Your task to perform on an android device: turn off notifications settings in the gmail app Image 0: 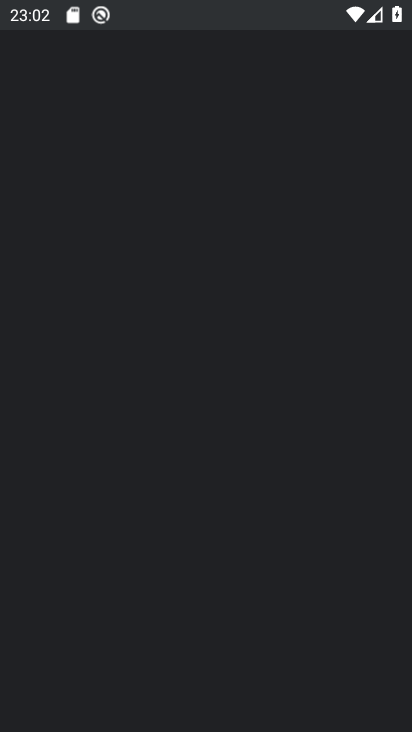
Step 0: drag from (229, 618) to (312, 321)
Your task to perform on an android device: turn off notifications settings in the gmail app Image 1: 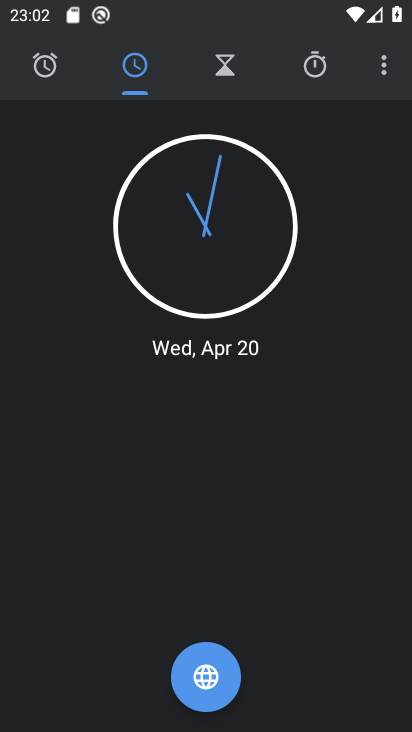
Step 1: press home button
Your task to perform on an android device: turn off notifications settings in the gmail app Image 2: 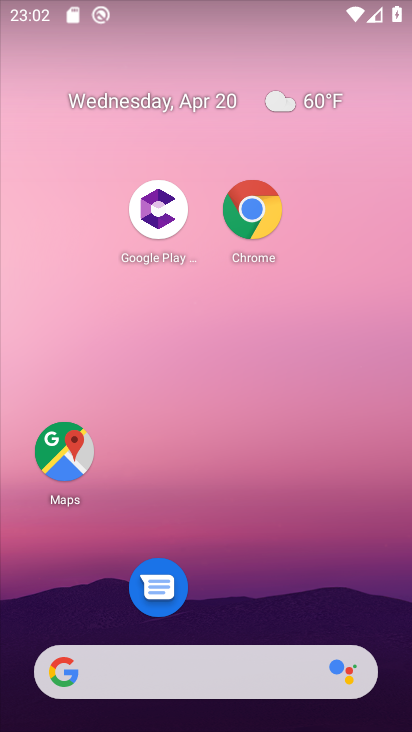
Step 2: drag from (209, 619) to (212, 114)
Your task to perform on an android device: turn off notifications settings in the gmail app Image 3: 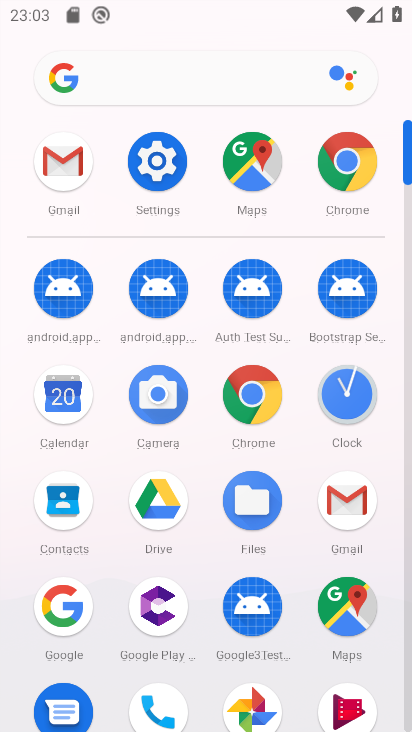
Step 3: click (63, 153)
Your task to perform on an android device: turn off notifications settings in the gmail app Image 4: 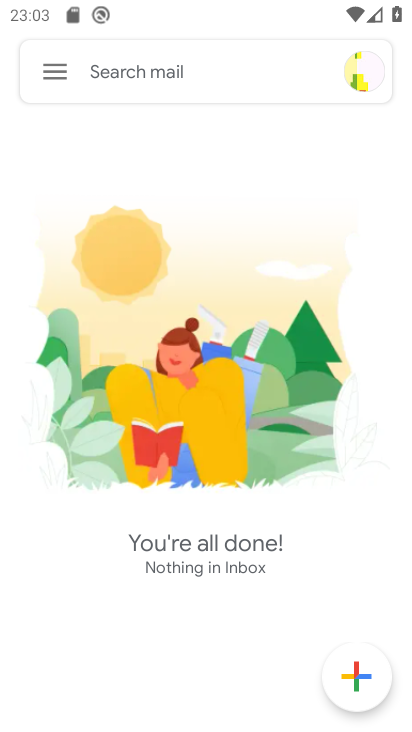
Step 4: click (58, 68)
Your task to perform on an android device: turn off notifications settings in the gmail app Image 5: 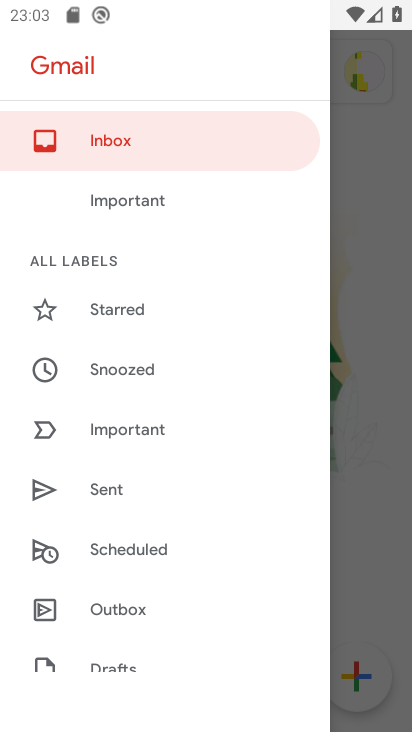
Step 5: drag from (152, 547) to (168, 185)
Your task to perform on an android device: turn off notifications settings in the gmail app Image 6: 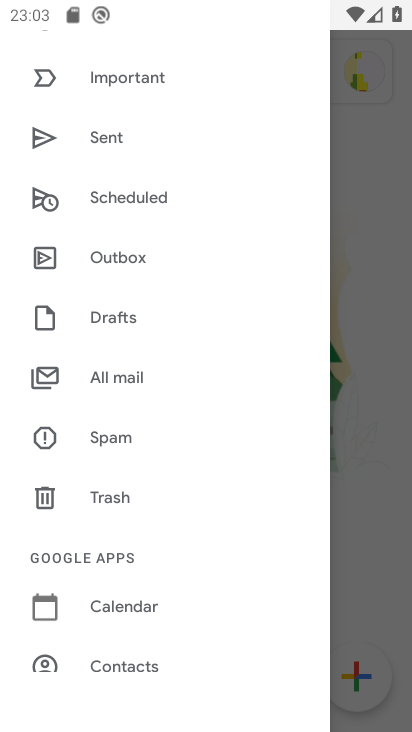
Step 6: drag from (184, 627) to (187, 169)
Your task to perform on an android device: turn off notifications settings in the gmail app Image 7: 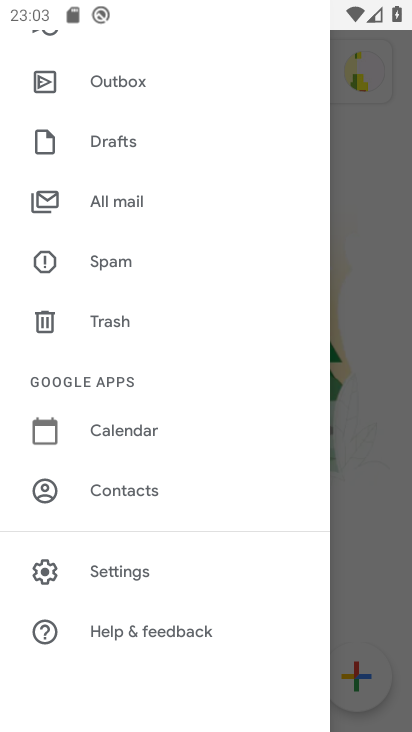
Step 7: click (167, 567)
Your task to perform on an android device: turn off notifications settings in the gmail app Image 8: 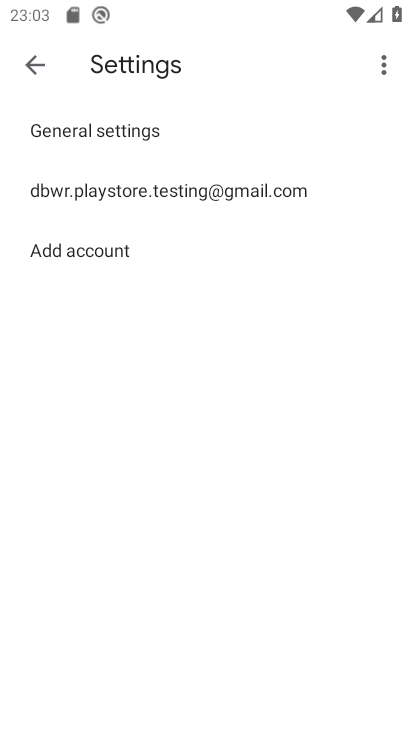
Step 8: click (167, 129)
Your task to perform on an android device: turn off notifications settings in the gmail app Image 9: 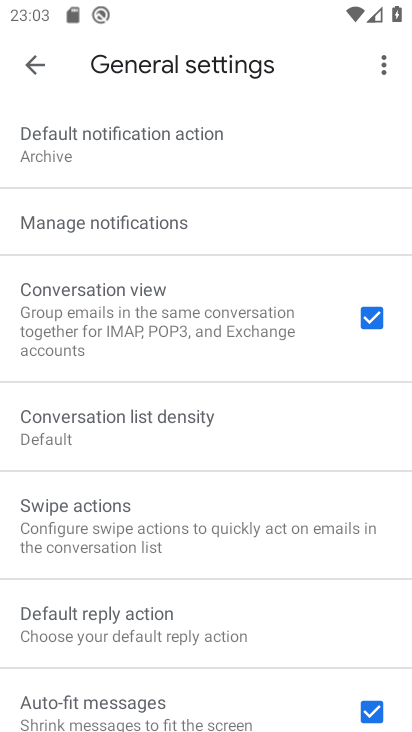
Step 9: click (206, 219)
Your task to perform on an android device: turn off notifications settings in the gmail app Image 10: 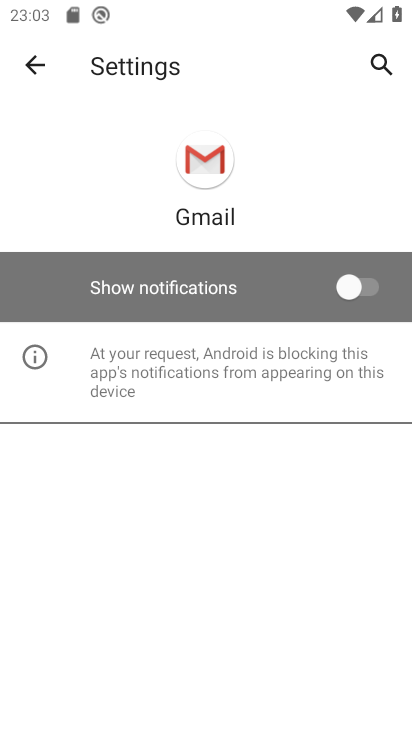
Step 10: task complete